Your task to perform on an android device: turn smart compose on in the gmail app Image 0: 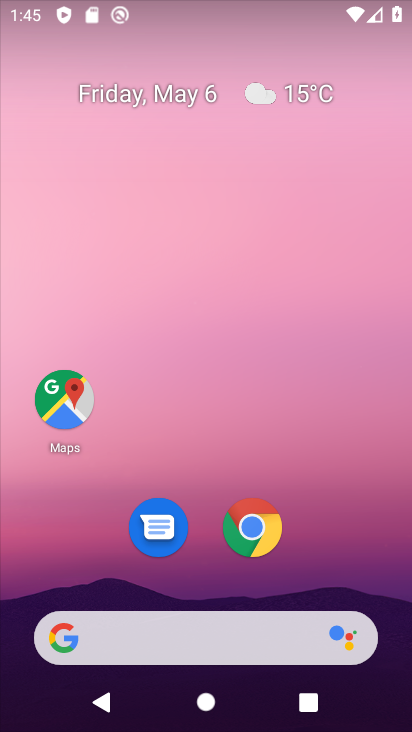
Step 0: drag from (330, 544) to (89, 54)
Your task to perform on an android device: turn smart compose on in the gmail app Image 1: 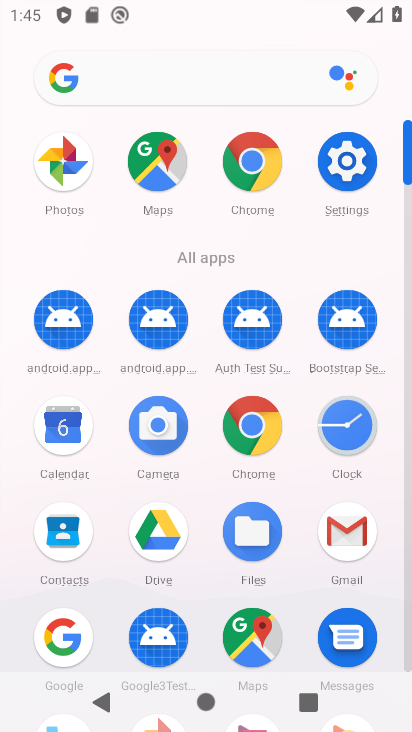
Step 1: click (340, 520)
Your task to perform on an android device: turn smart compose on in the gmail app Image 2: 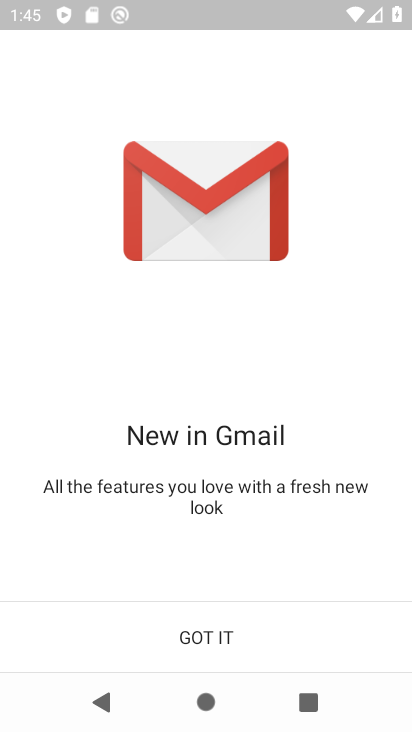
Step 2: click (207, 638)
Your task to perform on an android device: turn smart compose on in the gmail app Image 3: 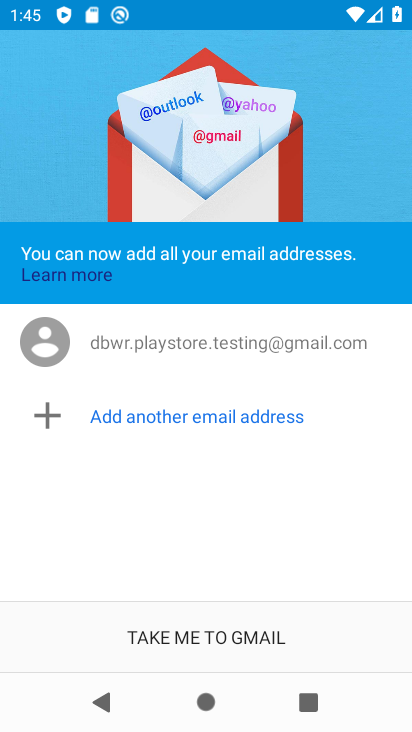
Step 3: click (208, 635)
Your task to perform on an android device: turn smart compose on in the gmail app Image 4: 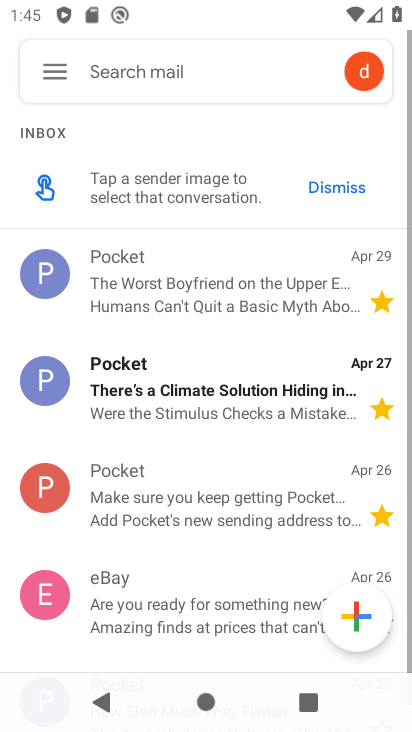
Step 4: click (60, 71)
Your task to perform on an android device: turn smart compose on in the gmail app Image 5: 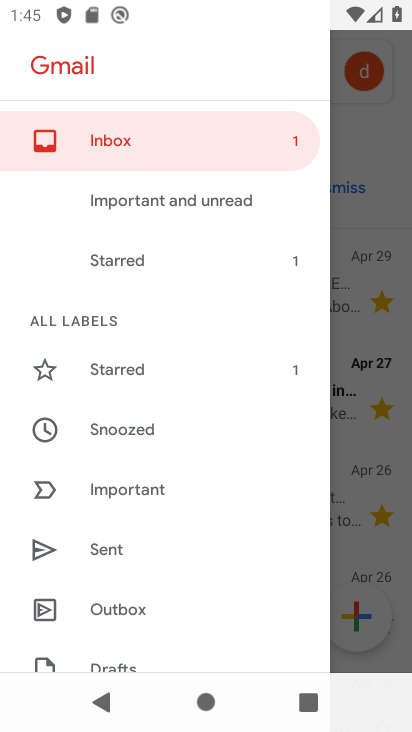
Step 5: drag from (150, 647) to (154, 307)
Your task to perform on an android device: turn smart compose on in the gmail app Image 6: 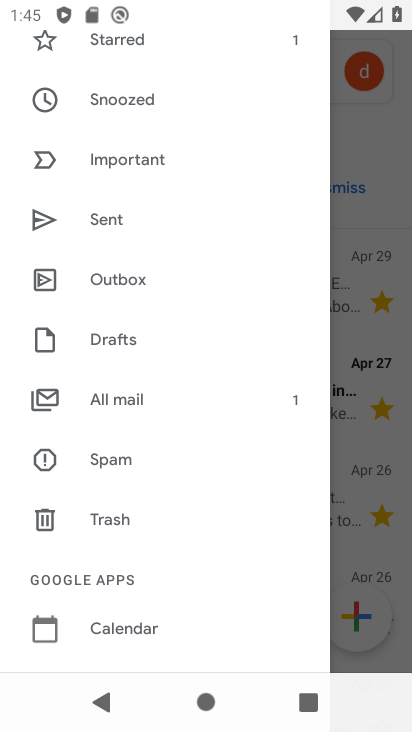
Step 6: drag from (99, 604) to (95, 181)
Your task to perform on an android device: turn smart compose on in the gmail app Image 7: 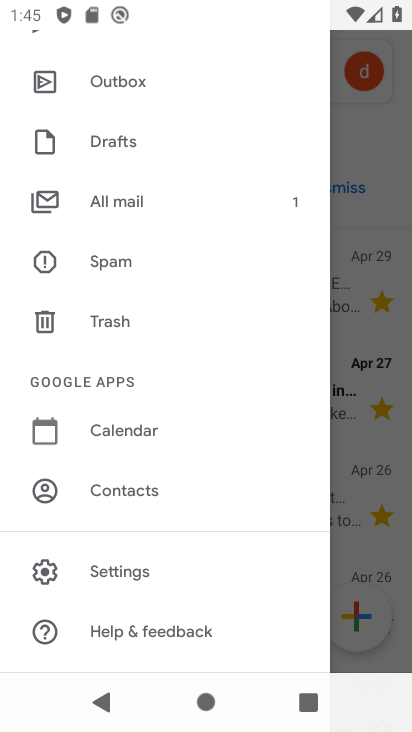
Step 7: click (107, 566)
Your task to perform on an android device: turn smart compose on in the gmail app Image 8: 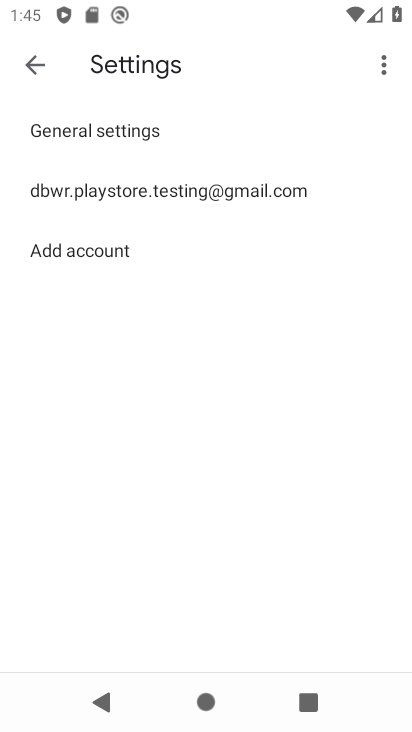
Step 8: click (141, 196)
Your task to perform on an android device: turn smart compose on in the gmail app Image 9: 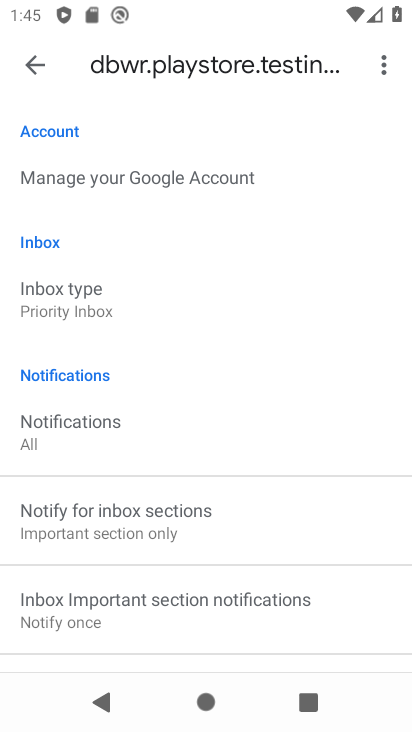
Step 9: task complete